Your task to perform on an android device: What's the weather going to be tomorrow? Image 0: 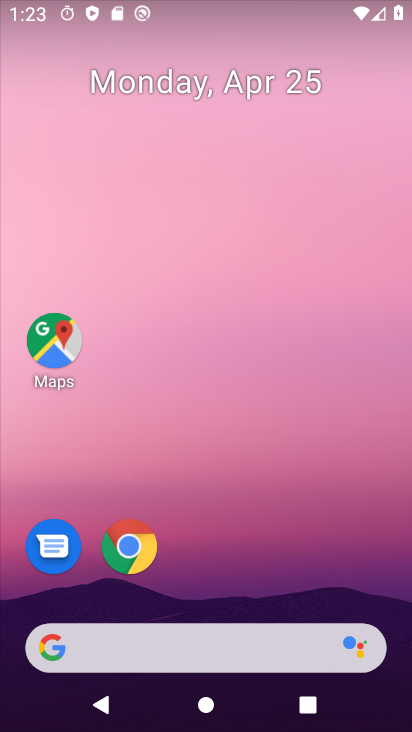
Step 0: click (264, 655)
Your task to perform on an android device: What's the weather going to be tomorrow? Image 1: 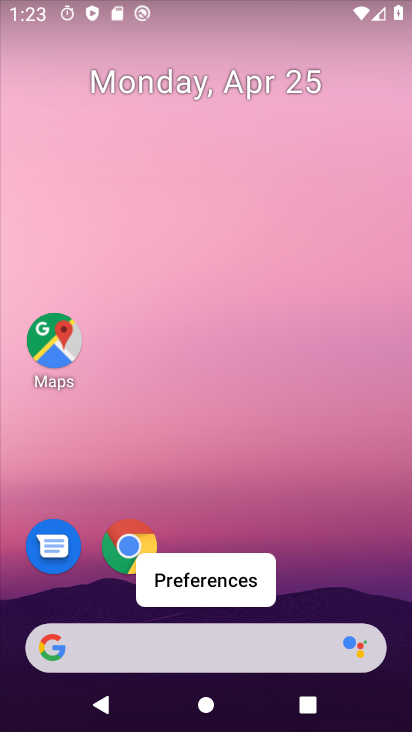
Step 1: click (199, 633)
Your task to perform on an android device: What's the weather going to be tomorrow? Image 2: 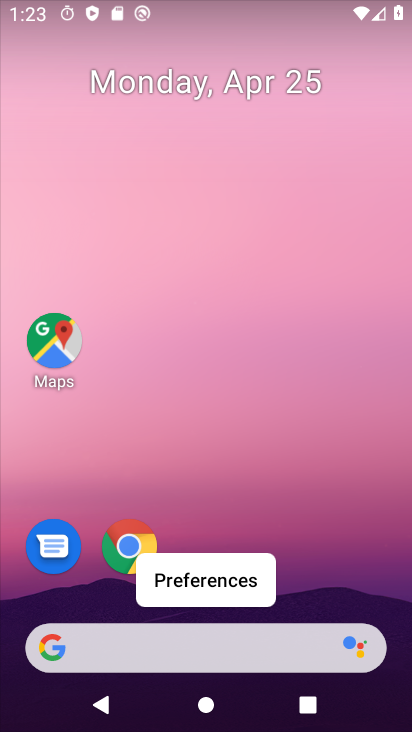
Step 2: click (195, 651)
Your task to perform on an android device: What's the weather going to be tomorrow? Image 3: 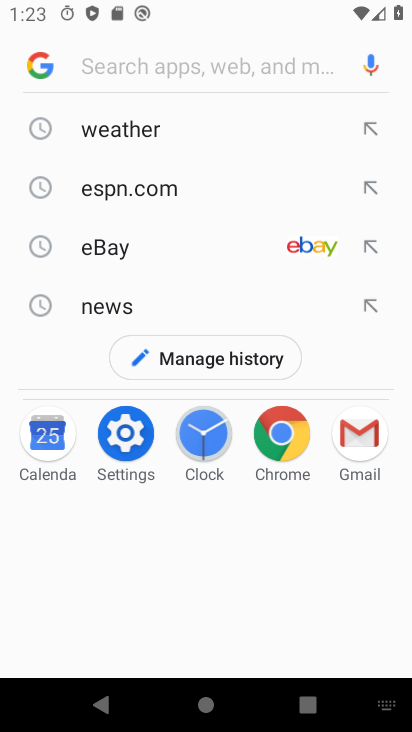
Step 3: click (93, 126)
Your task to perform on an android device: What's the weather going to be tomorrow? Image 4: 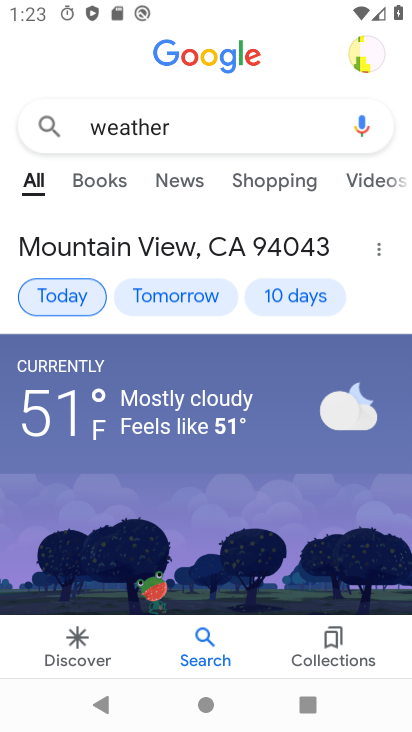
Step 4: click (188, 304)
Your task to perform on an android device: What's the weather going to be tomorrow? Image 5: 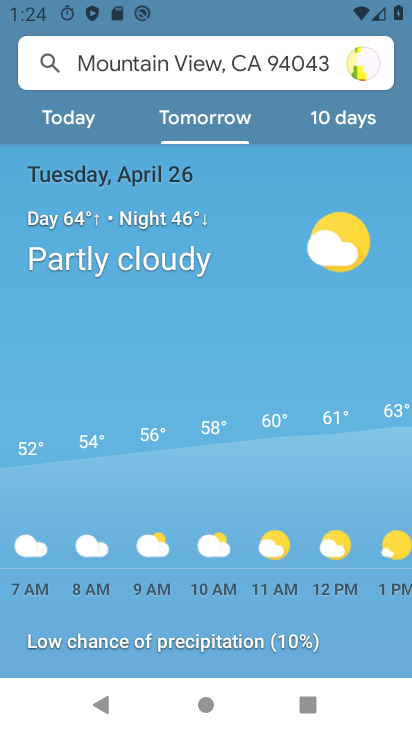
Step 5: task complete